Your task to perform on an android device: Add "logitech g pro" to the cart on newegg.com Image 0: 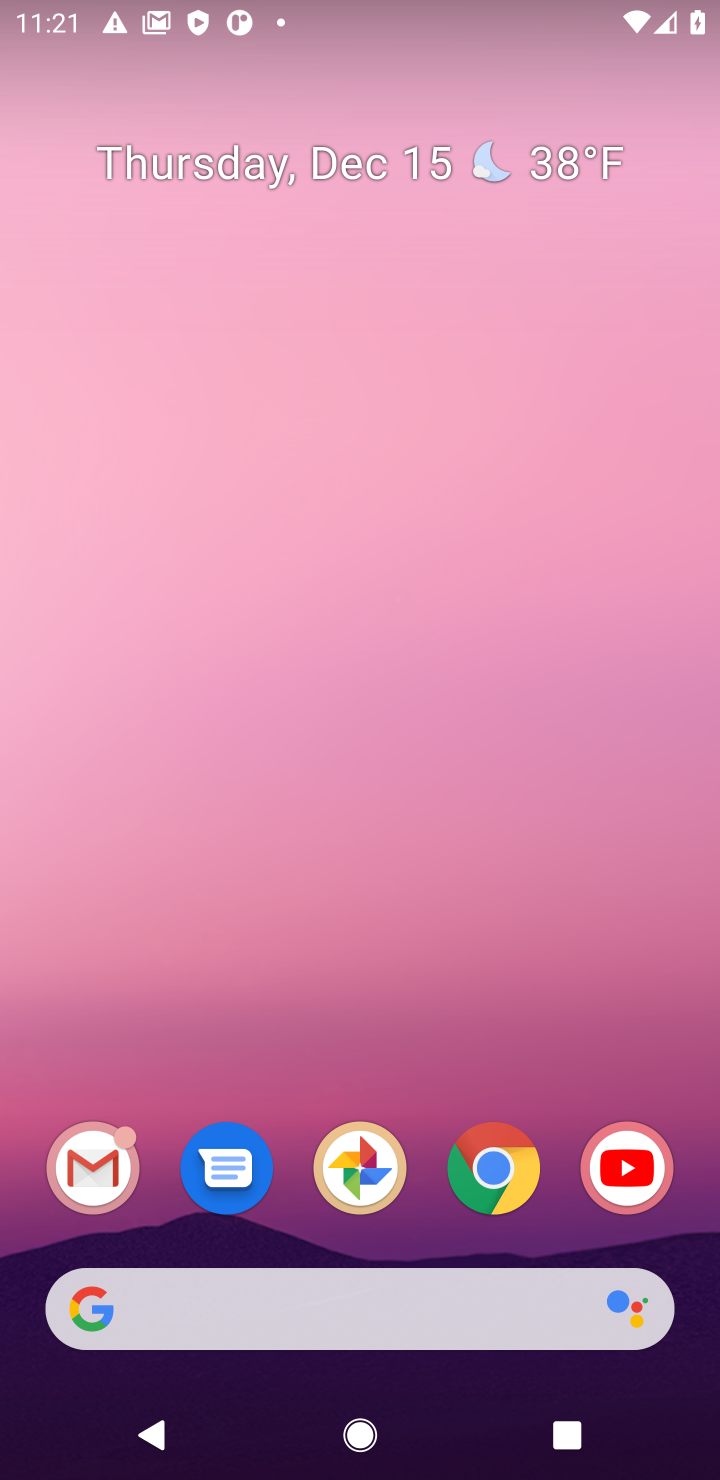
Step 0: click (486, 1173)
Your task to perform on an android device: Add "logitech g pro" to the cart on newegg.com Image 1: 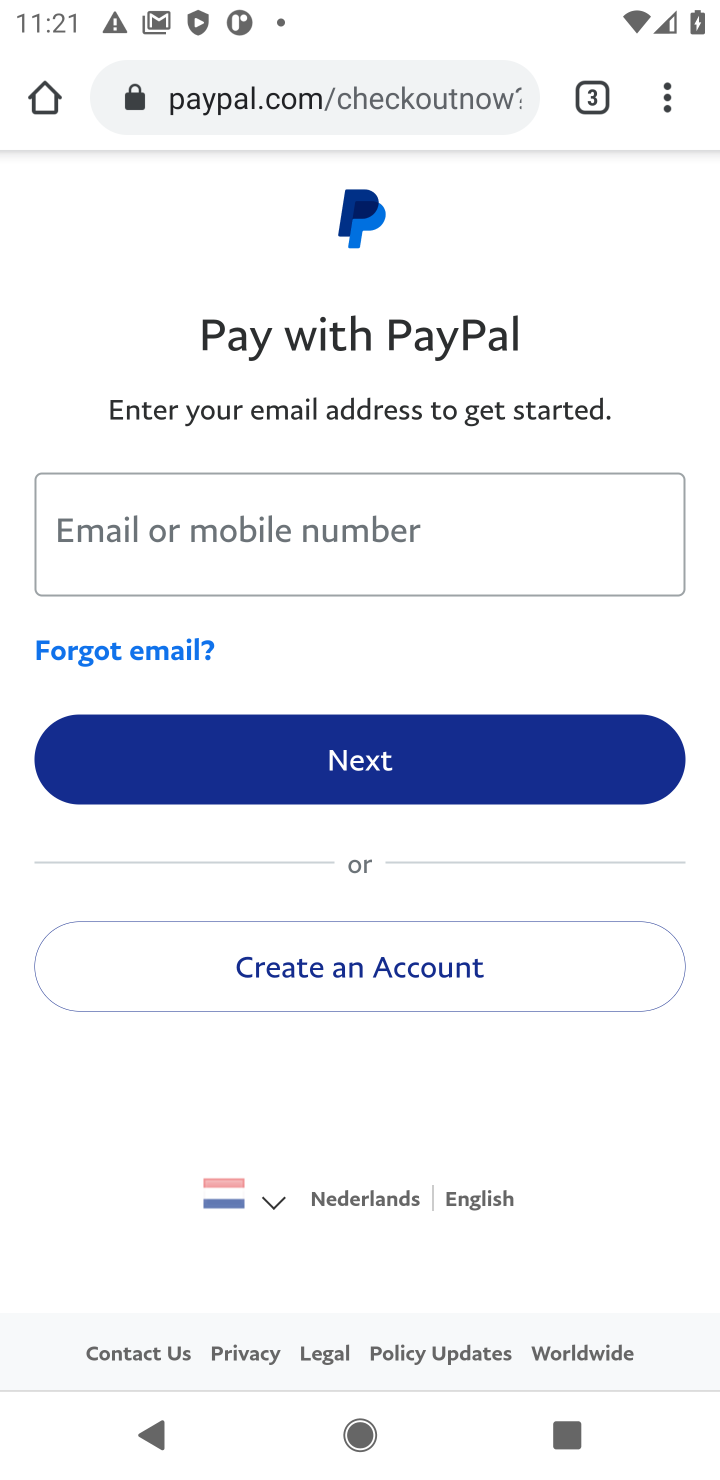
Step 1: click (324, 77)
Your task to perform on an android device: Add "logitech g pro" to the cart on newegg.com Image 2: 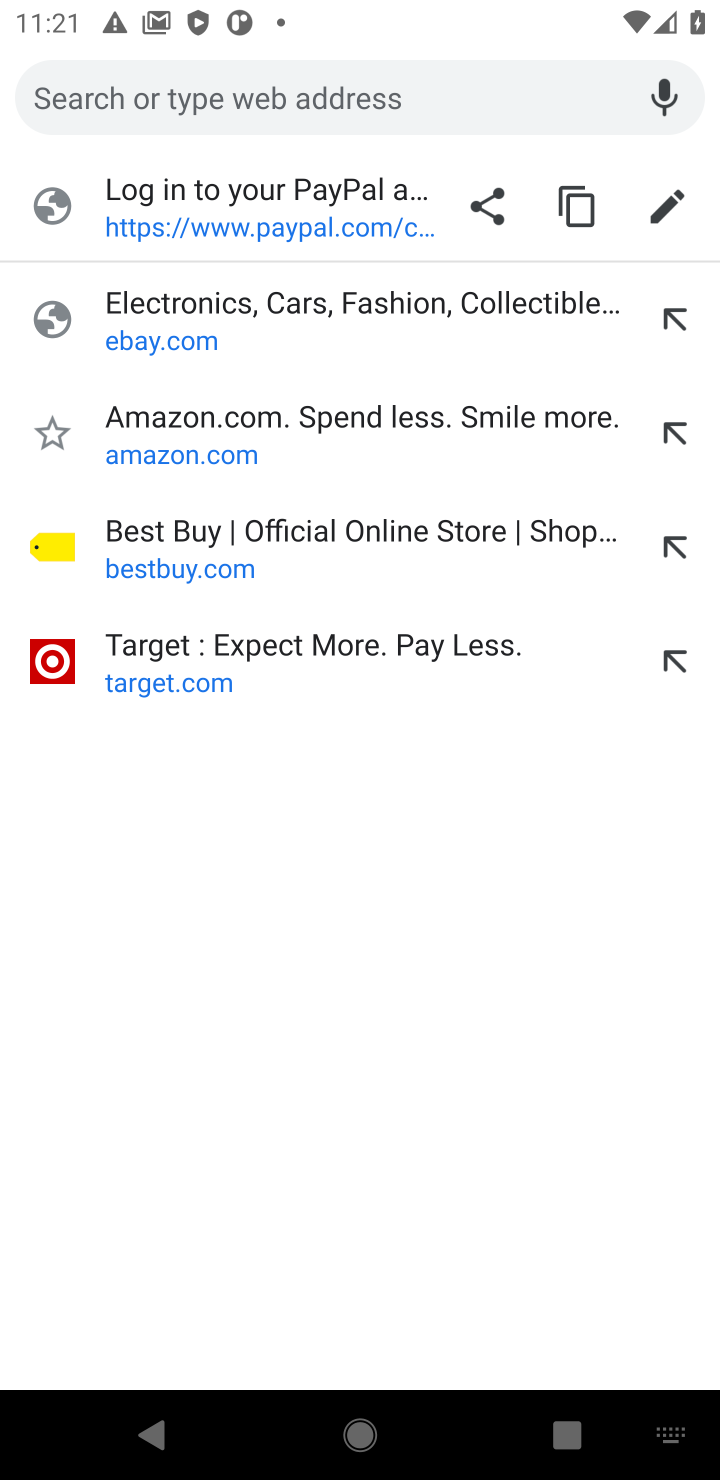
Step 2: type "newegg"
Your task to perform on an android device: Add "logitech g pro" to the cart on newegg.com Image 3: 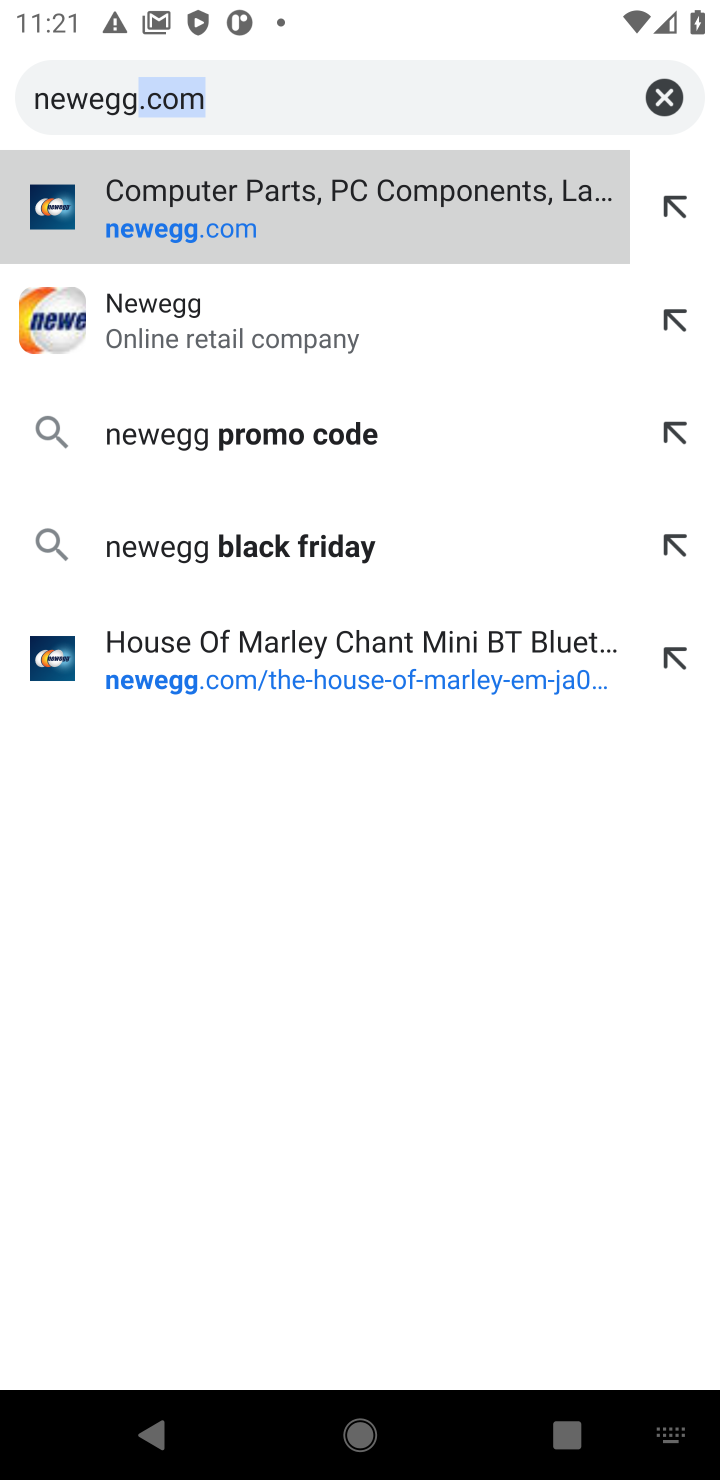
Step 3: click (285, 246)
Your task to perform on an android device: Add "logitech g pro" to the cart on newegg.com Image 4: 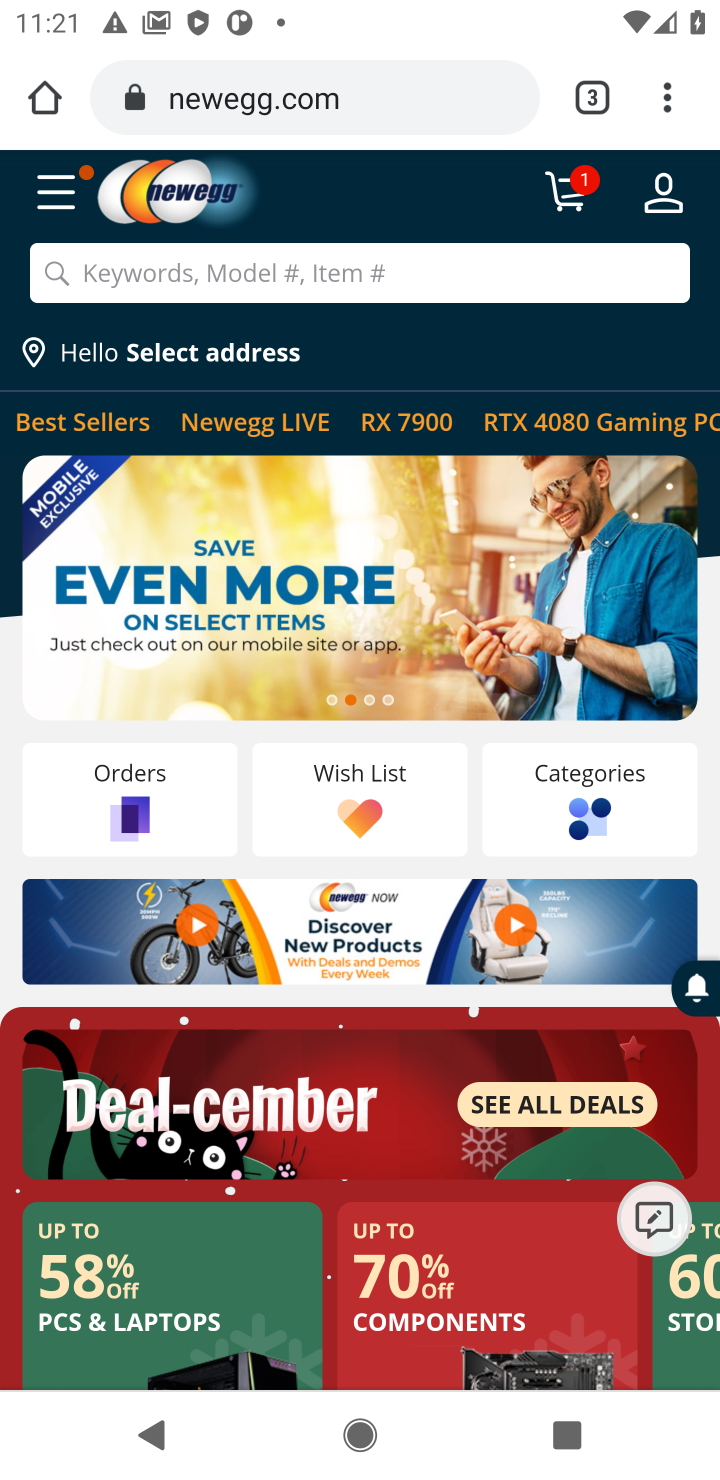
Step 4: click (369, 260)
Your task to perform on an android device: Add "logitech g pro" to the cart on newegg.com Image 5: 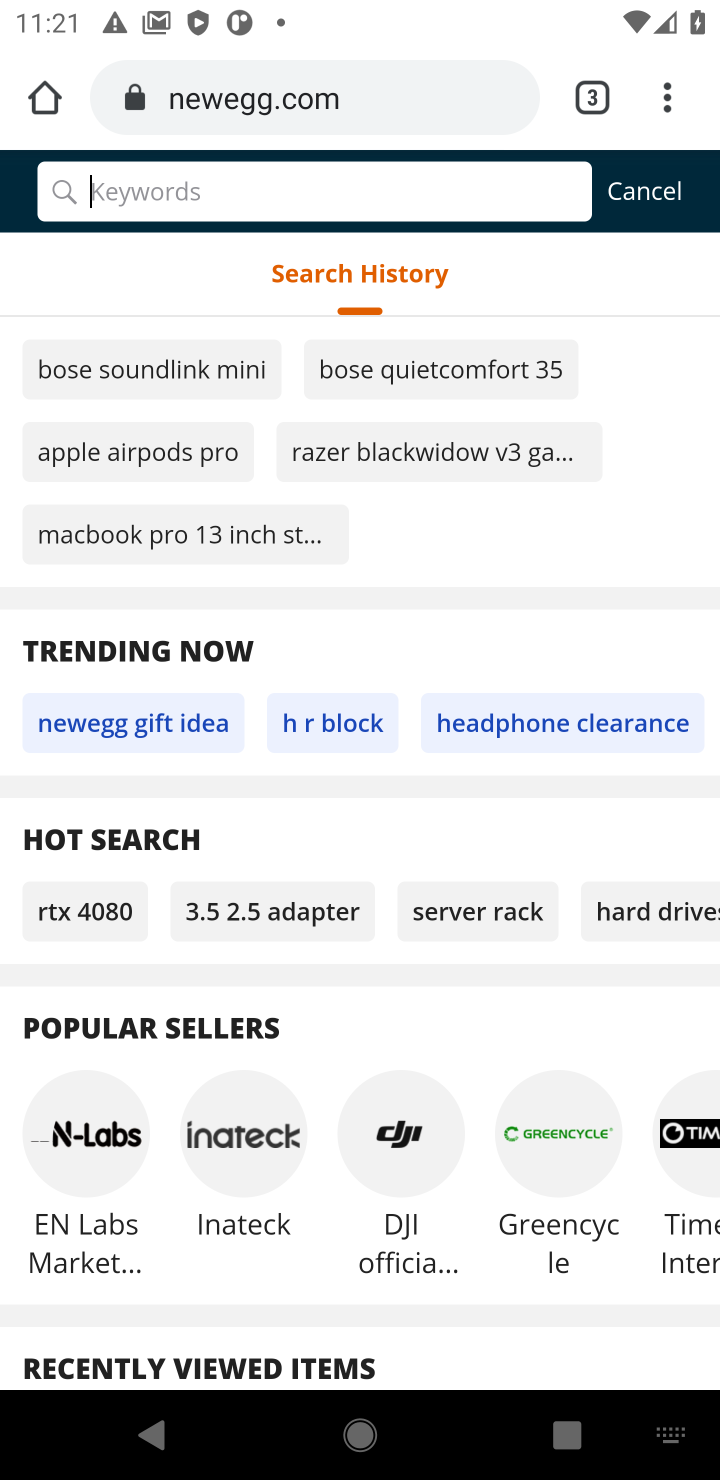
Step 5: type "logitech g pro"
Your task to perform on an android device: Add "logitech g pro" to the cart on newegg.com Image 6: 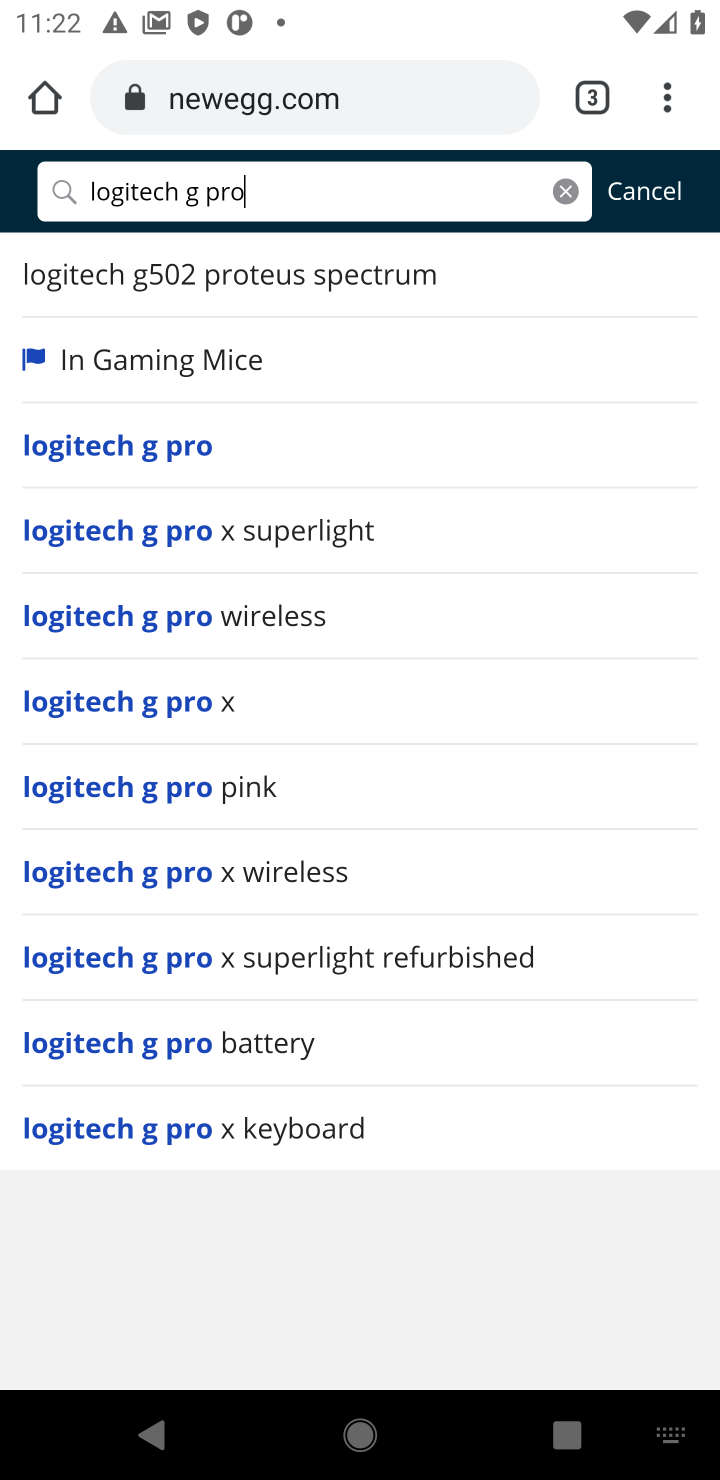
Step 6: click (296, 273)
Your task to perform on an android device: Add "logitech g pro" to the cart on newegg.com Image 7: 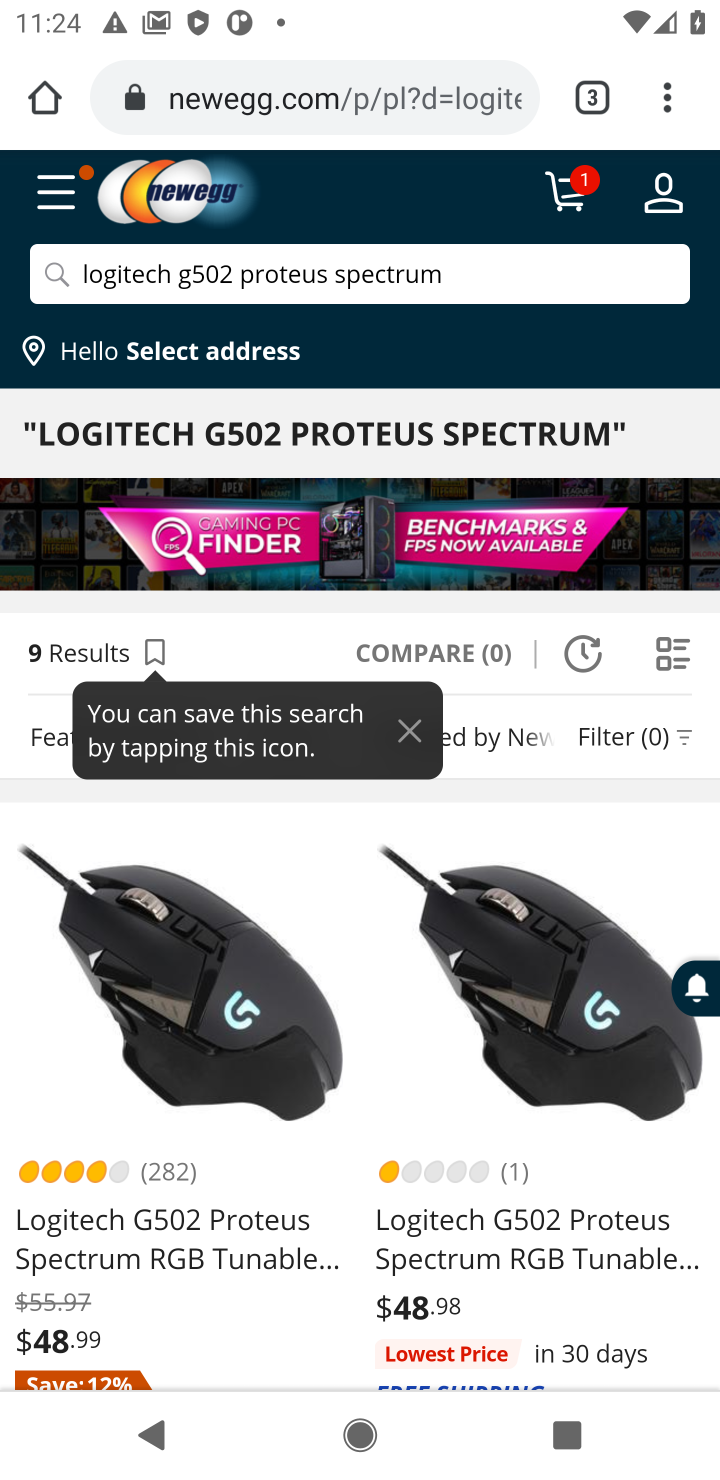
Step 7: click (183, 1083)
Your task to perform on an android device: Add "logitech g pro" to the cart on newegg.com Image 8: 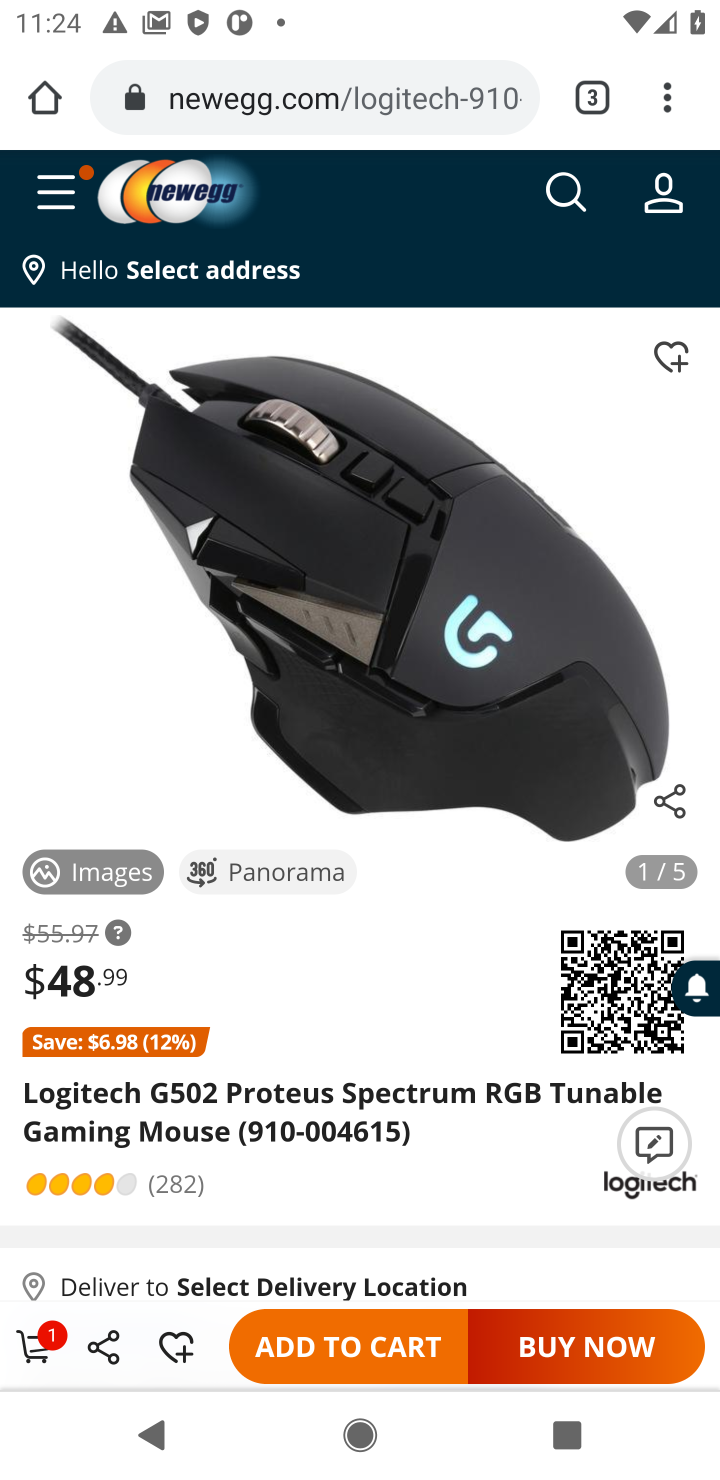
Step 8: click (326, 1347)
Your task to perform on an android device: Add "logitech g pro" to the cart on newegg.com Image 9: 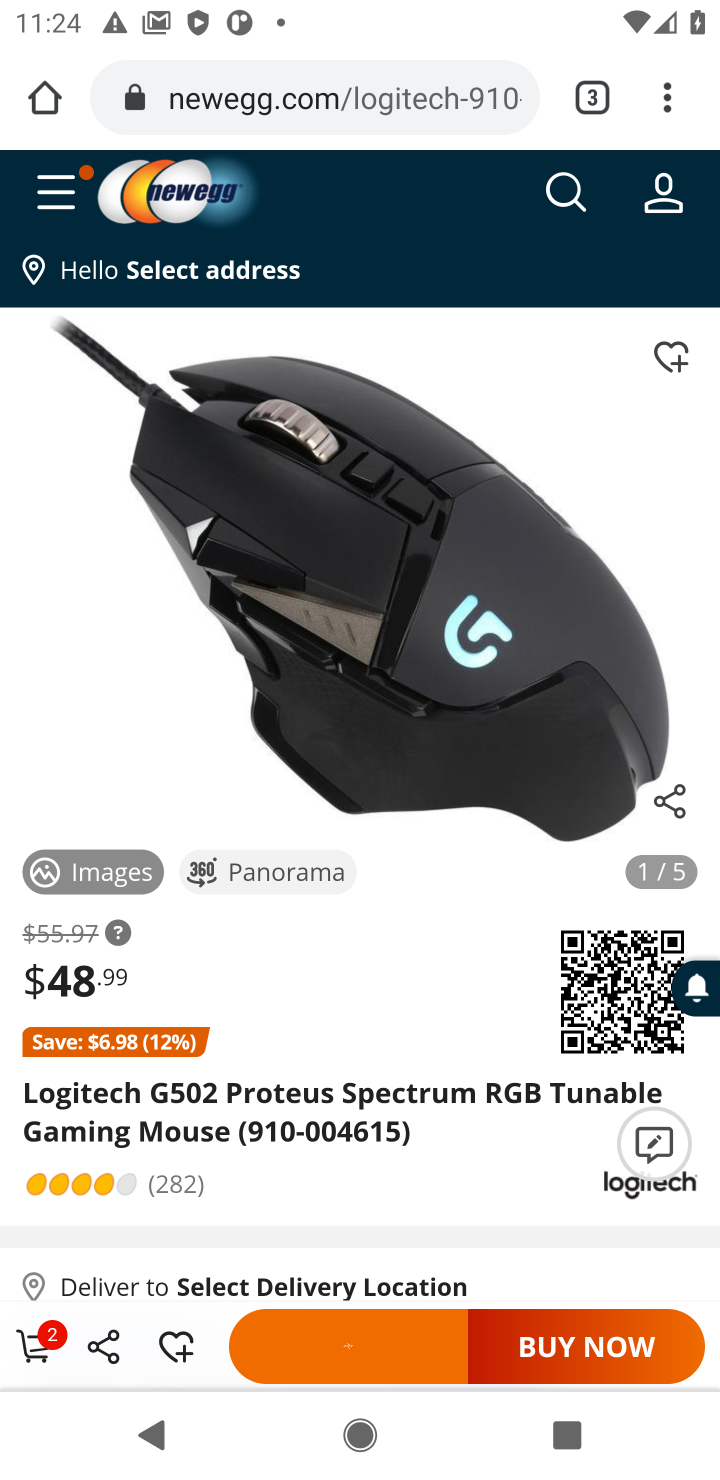
Step 9: task complete